Your task to perform on an android device: What's on my calendar today? Image 0: 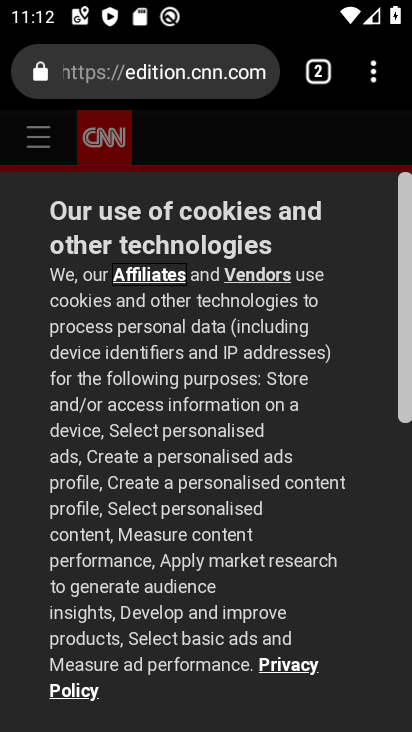
Step 0: press home button
Your task to perform on an android device: What's on my calendar today? Image 1: 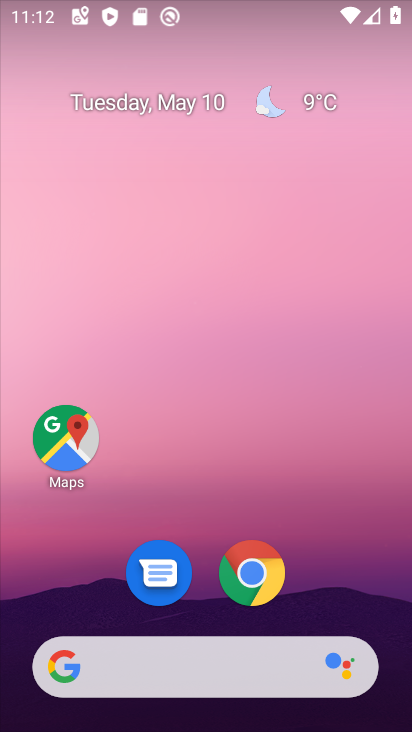
Step 1: drag from (217, 727) to (217, 250)
Your task to perform on an android device: What's on my calendar today? Image 2: 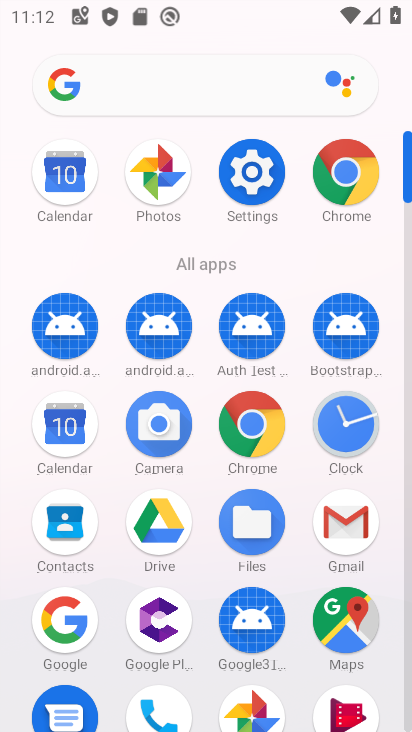
Step 2: click (61, 435)
Your task to perform on an android device: What's on my calendar today? Image 3: 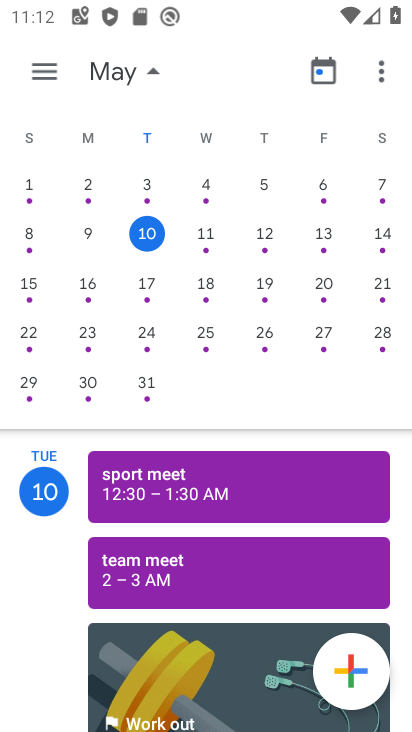
Step 3: click (152, 233)
Your task to perform on an android device: What's on my calendar today? Image 4: 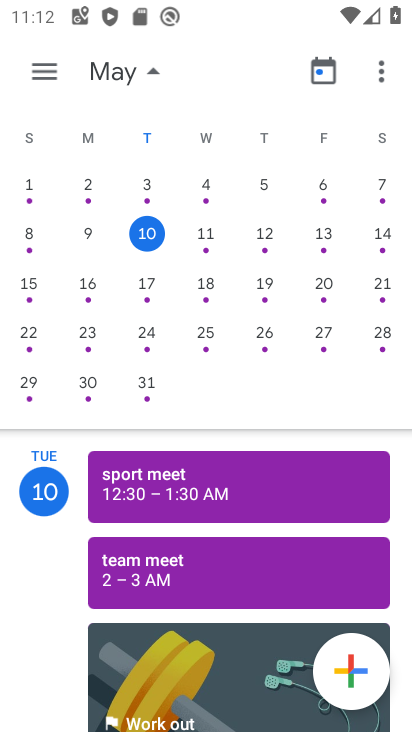
Step 4: click (149, 66)
Your task to perform on an android device: What's on my calendar today? Image 5: 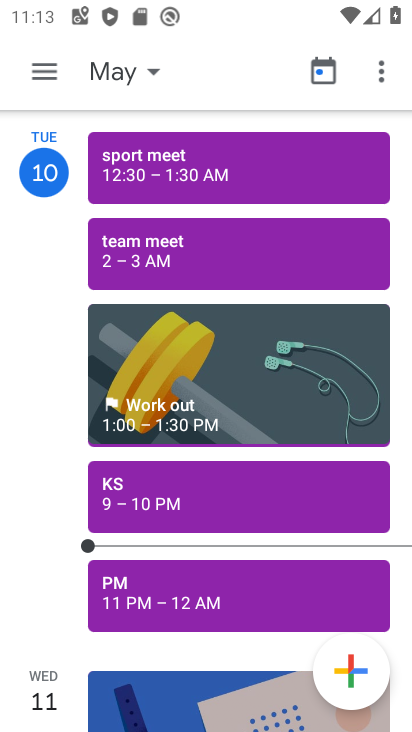
Step 5: task complete